Your task to perform on an android device: turn pop-ups on in chrome Image 0: 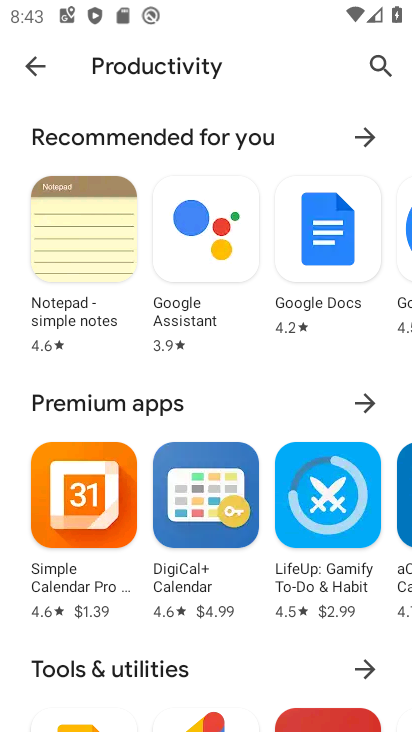
Step 0: press home button
Your task to perform on an android device: turn pop-ups on in chrome Image 1: 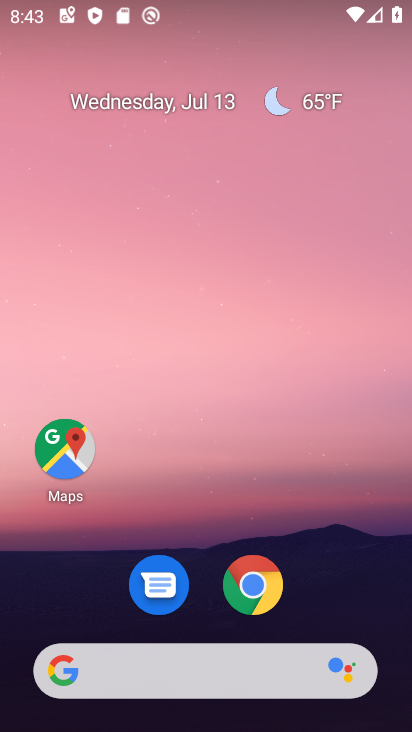
Step 1: click (261, 600)
Your task to perform on an android device: turn pop-ups on in chrome Image 2: 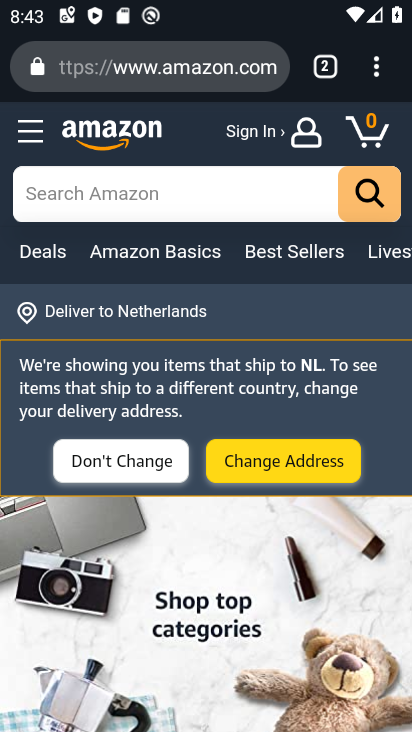
Step 2: click (379, 78)
Your task to perform on an android device: turn pop-ups on in chrome Image 3: 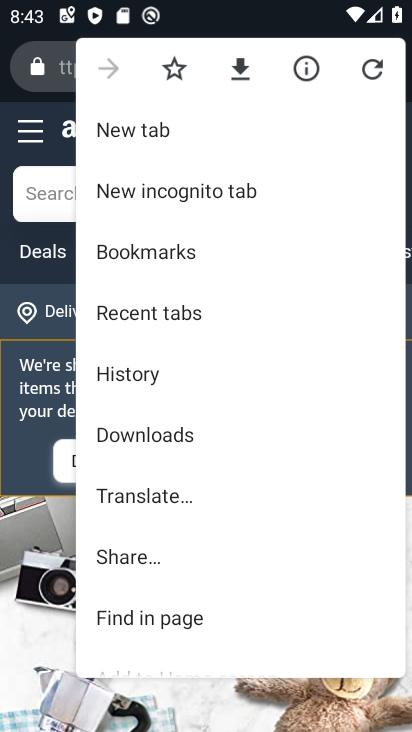
Step 3: drag from (209, 566) to (201, 169)
Your task to perform on an android device: turn pop-ups on in chrome Image 4: 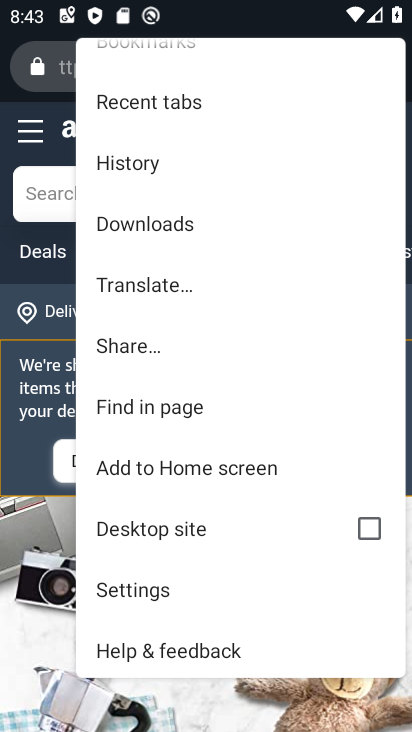
Step 4: click (161, 591)
Your task to perform on an android device: turn pop-ups on in chrome Image 5: 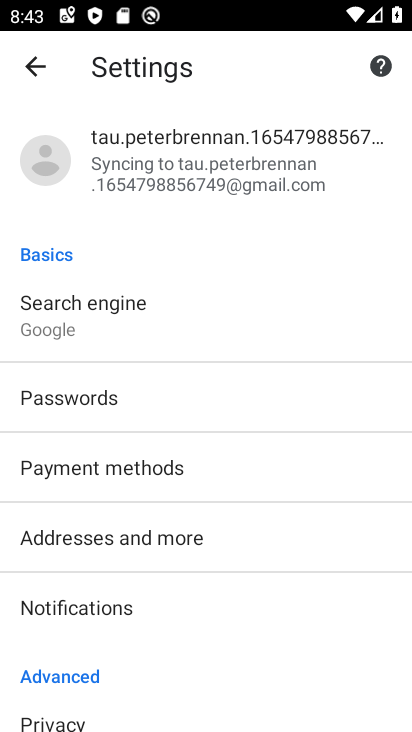
Step 5: drag from (228, 525) to (254, 1)
Your task to perform on an android device: turn pop-ups on in chrome Image 6: 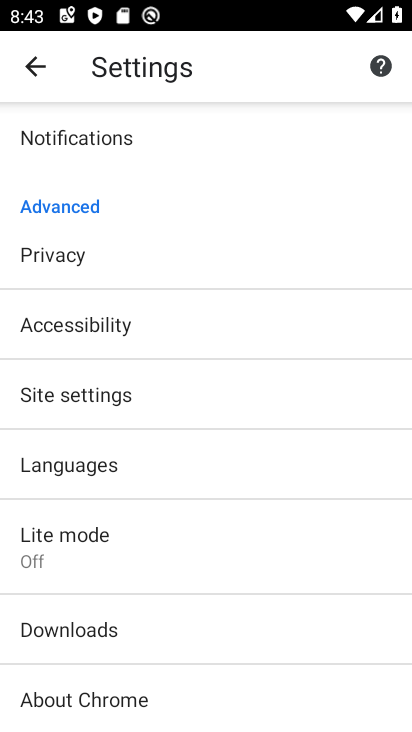
Step 6: drag from (215, 596) to (215, 367)
Your task to perform on an android device: turn pop-ups on in chrome Image 7: 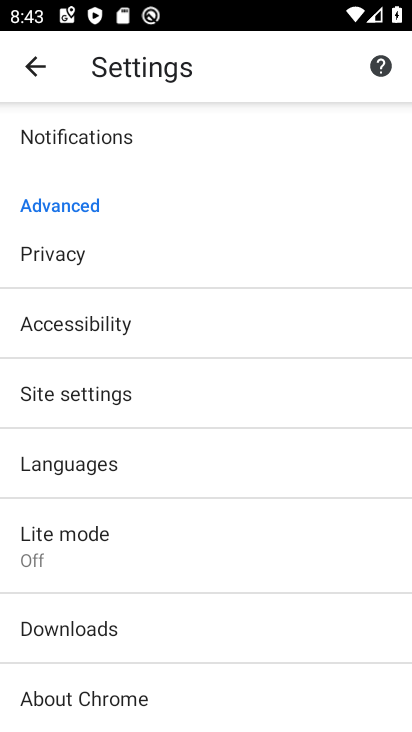
Step 7: click (128, 390)
Your task to perform on an android device: turn pop-ups on in chrome Image 8: 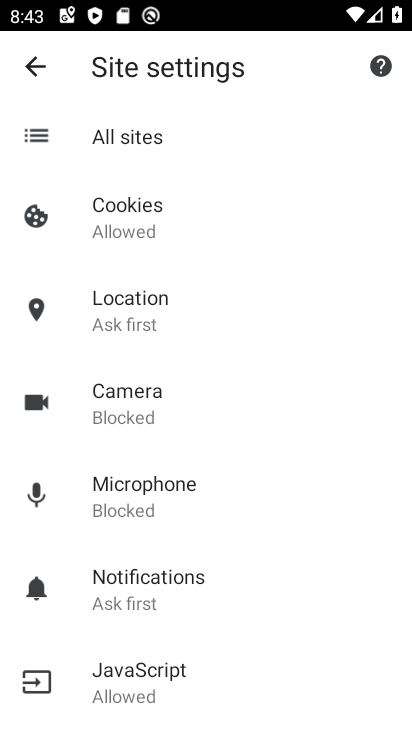
Step 8: drag from (262, 536) to (264, 307)
Your task to perform on an android device: turn pop-ups on in chrome Image 9: 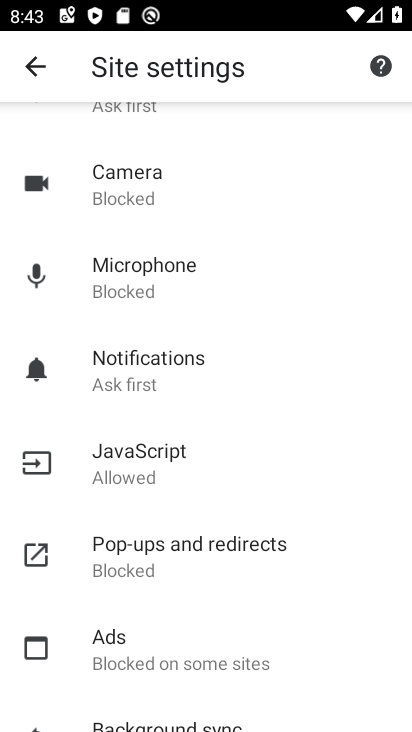
Step 9: click (201, 546)
Your task to perform on an android device: turn pop-ups on in chrome Image 10: 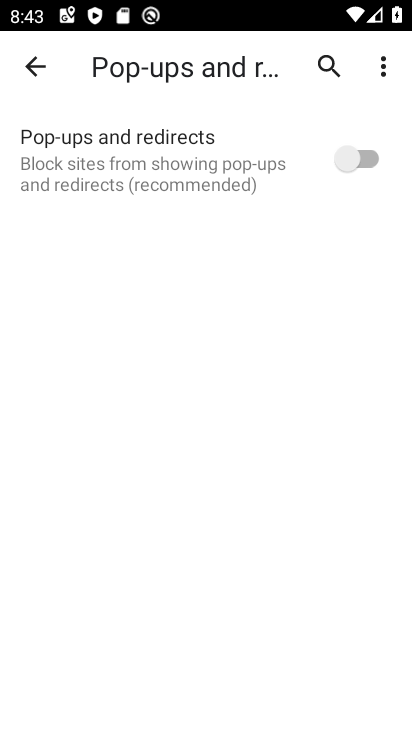
Step 10: click (358, 151)
Your task to perform on an android device: turn pop-ups on in chrome Image 11: 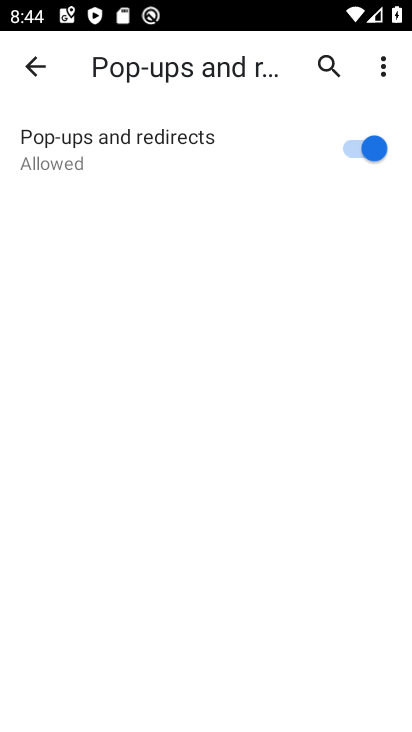
Step 11: task complete